Your task to perform on an android device: Open Google Chrome and click the shortcut for Amazon.com Image 0: 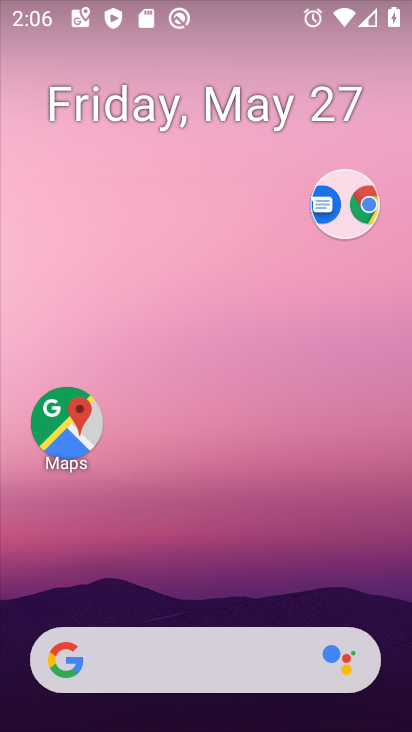
Step 0: drag from (272, 484) to (292, 63)
Your task to perform on an android device: Open Google Chrome and click the shortcut for Amazon.com Image 1: 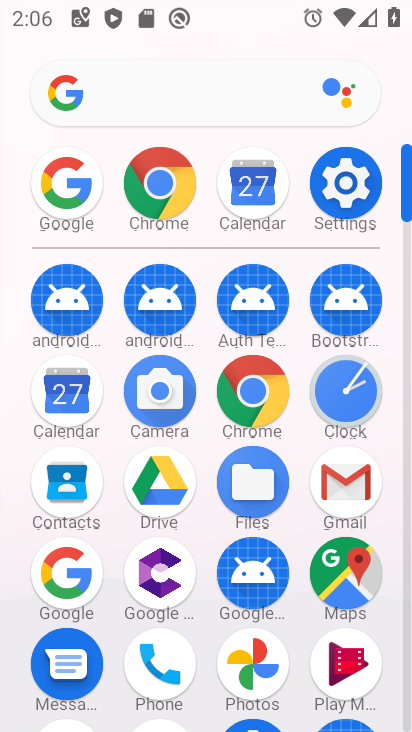
Step 1: click (162, 206)
Your task to perform on an android device: Open Google Chrome and click the shortcut for Amazon.com Image 2: 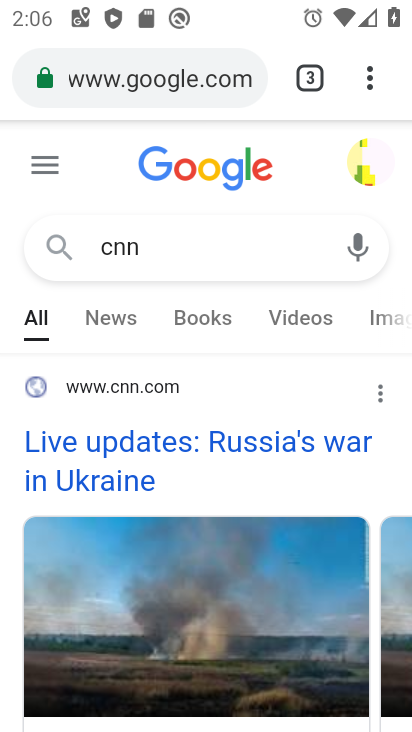
Step 2: click (213, 69)
Your task to perform on an android device: Open Google Chrome and click the shortcut for Amazon.com Image 3: 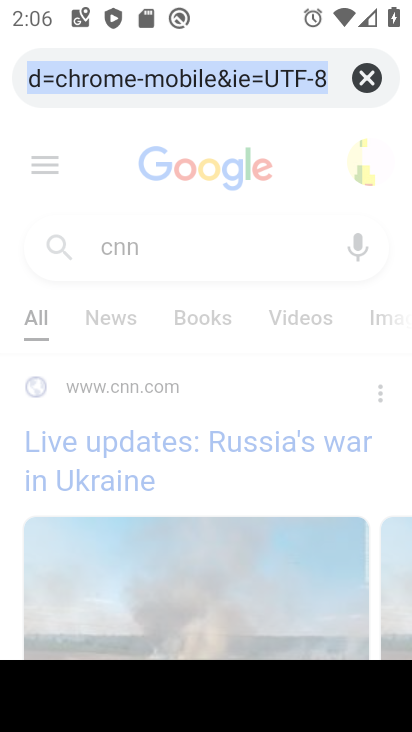
Step 3: type "amazon"
Your task to perform on an android device: Open Google Chrome and click the shortcut for Amazon.com Image 4: 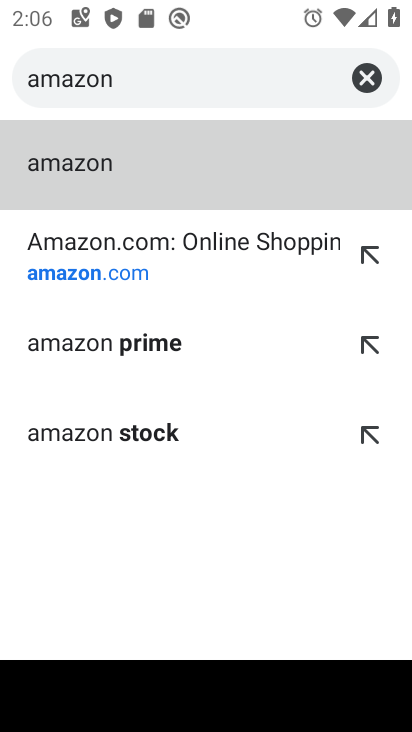
Step 4: click (119, 265)
Your task to perform on an android device: Open Google Chrome and click the shortcut for Amazon.com Image 5: 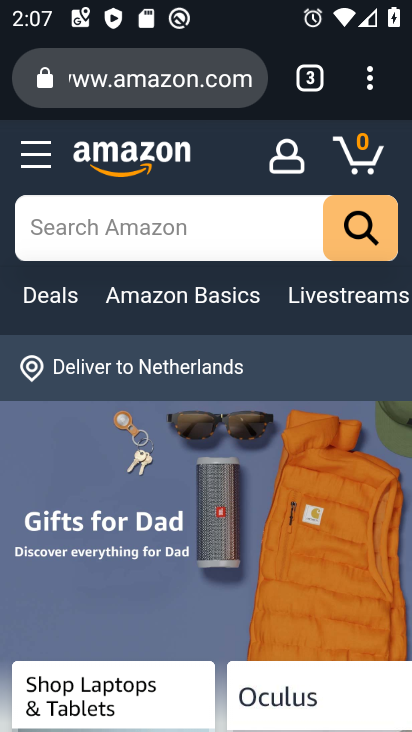
Step 5: drag from (310, 80) to (319, 273)
Your task to perform on an android device: Open Google Chrome and click the shortcut for Amazon.com Image 6: 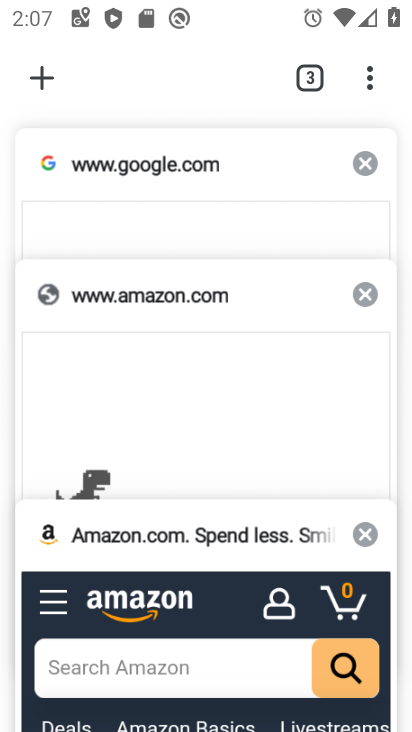
Step 6: click (49, 79)
Your task to perform on an android device: Open Google Chrome and click the shortcut for Amazon.com Image 7: 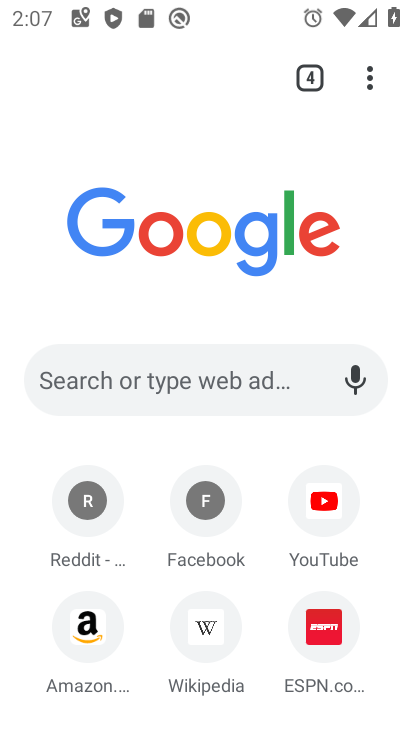
Step 7: click (101, 635)
Your task to perform on an android device: Open Google Chrome and click the shortcut for Amazon.com Image 8: 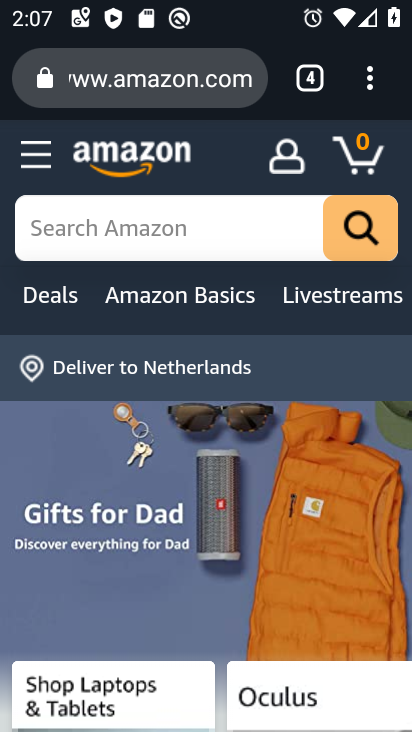
Step 8: task complete